Your task to perform on an android device: change notification settings in the gmail app Image 0: 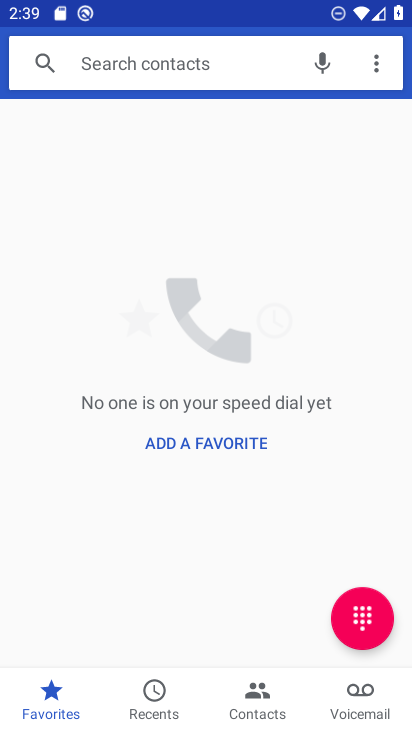
Step 0: press home button
Your task to perform on an android device: change notification settings in the gmail app Image 1: 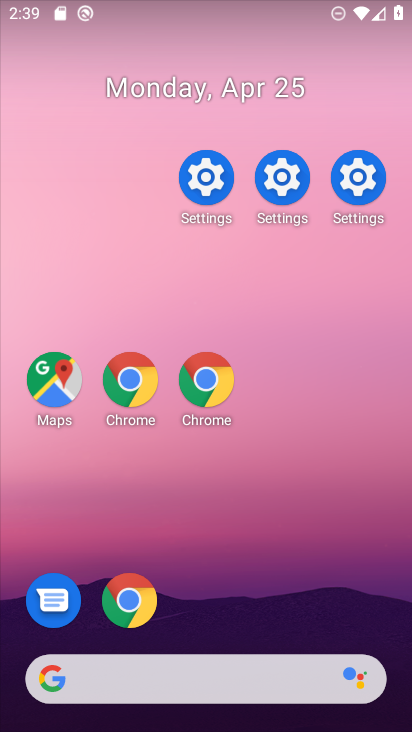
Step 1: drag from (220, 467) to (144, 0)
Your task to perform on an android device: change notification settings in the gmail app Image 2: 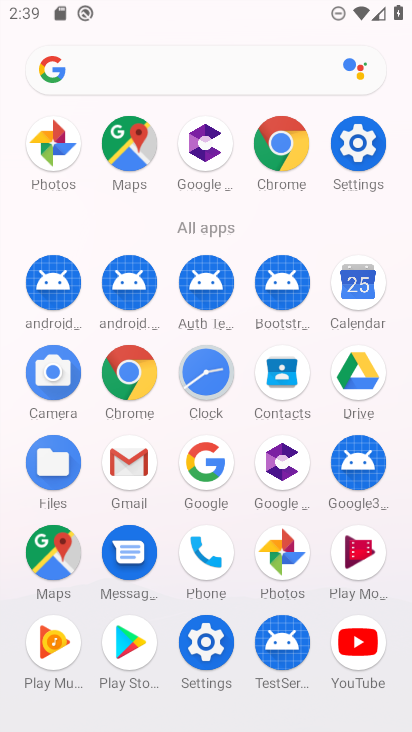
Step 2: click (122, 461)
Your task to perform on an android device: change notification settings in the gmail app Image 3: 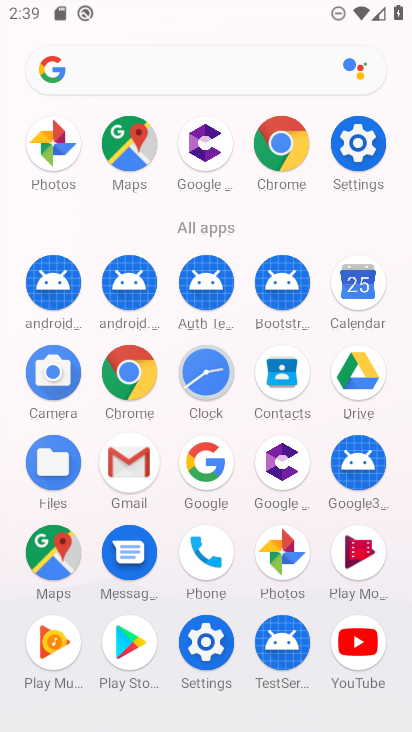
Step 3: click (122, 461)
Your task to perform on an android device: change notification settings in the gmail app Image 4: 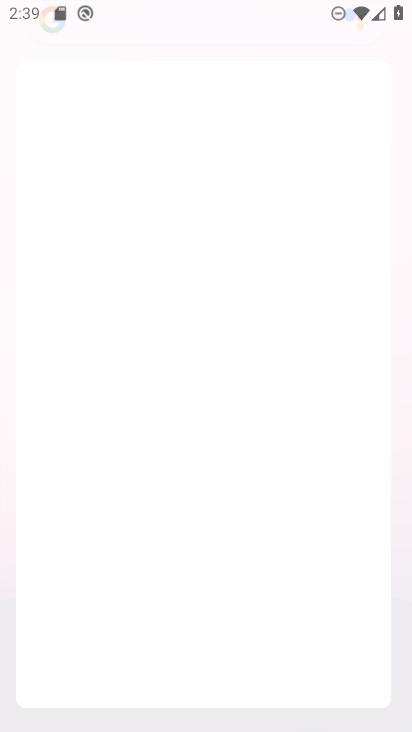
Step 4: click (124, 458)
Your task to perform on an android device: change notification settings in the gmail app Image 5: 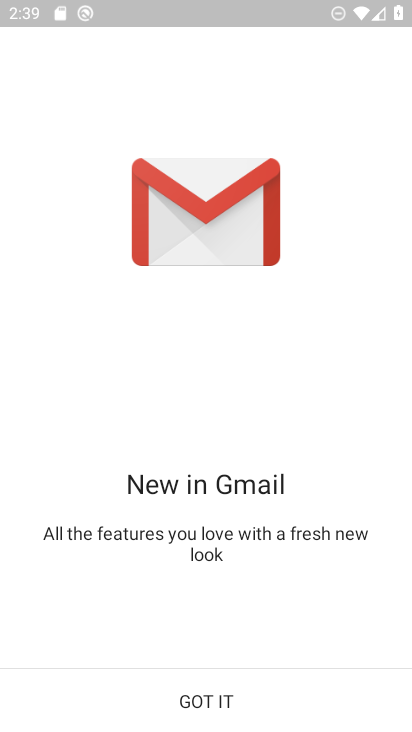
Step 5: click (209, 694)
Your task to perform on an android device: change notification settings in the gmail app Image 6: 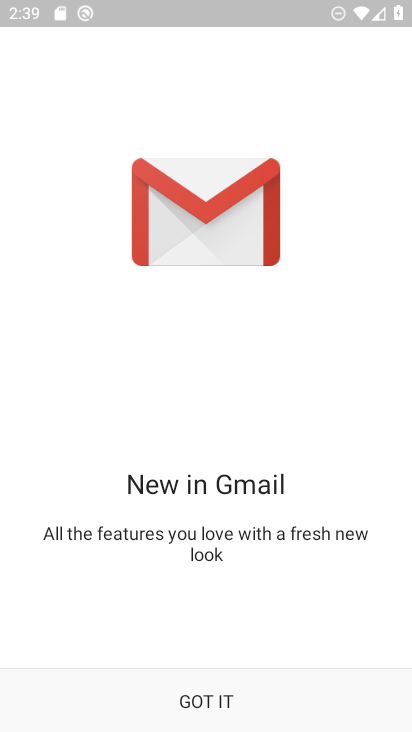
Step 6: click (207, 687)
Your task to perform on an android device: change notification settings in the gmail app Image 7: 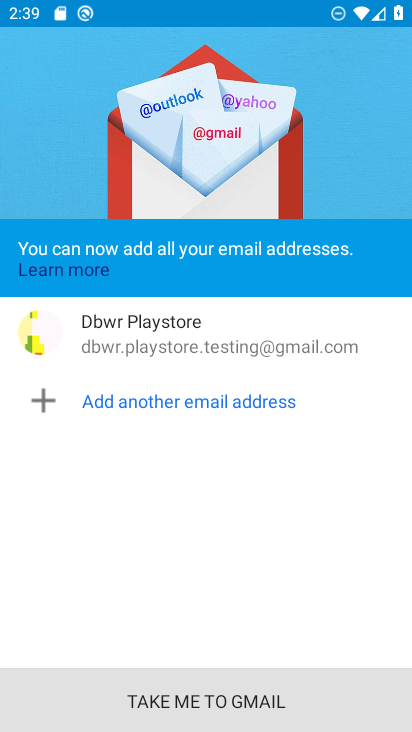
Step 7: click (207, 687)
Your task to perform on an android device: change notification settings in the gmail app Image 8: 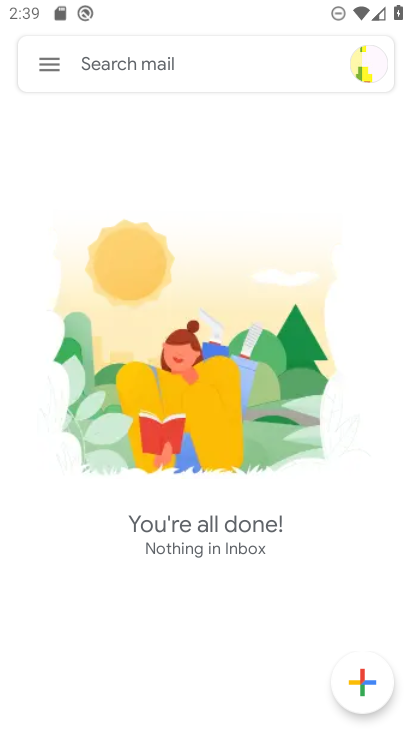
Step 8: click (47, 56)
Your task to perform on an android device: change notification settings in the gmail app Image 9: 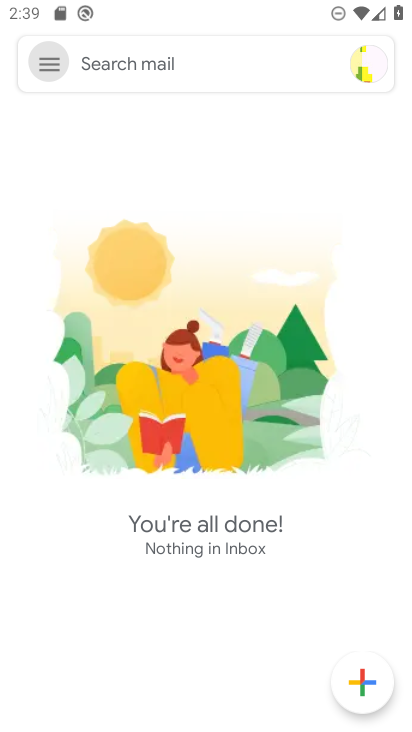
Step 9: click (47, 56)
Your task to perform on an android device: change notification settings in the gmail app Image 10: 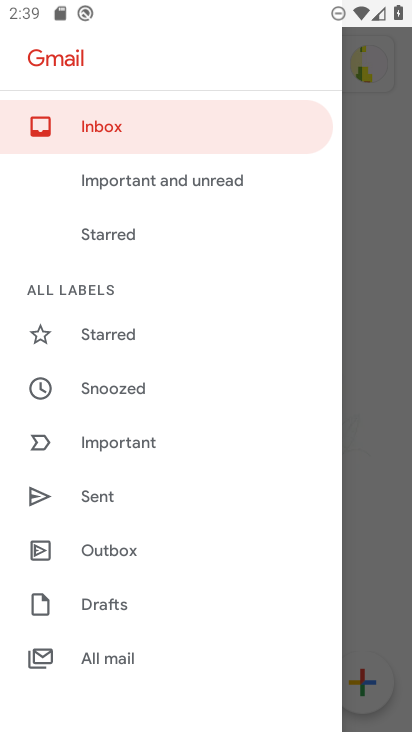
Step 10: drag from (157, 626) to (166, 16)
Your task to perform on an android device: change notification settings in the gmail app Image 11: 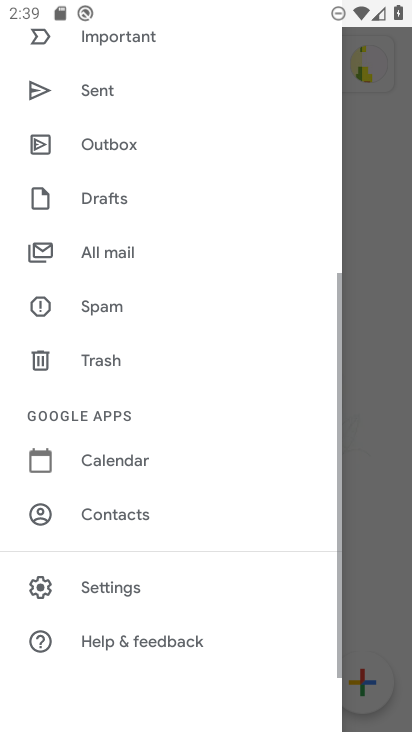
Step 11: click (94, 584)
Your task to perform on an android device: change notification settings in the gmail app Image 12: 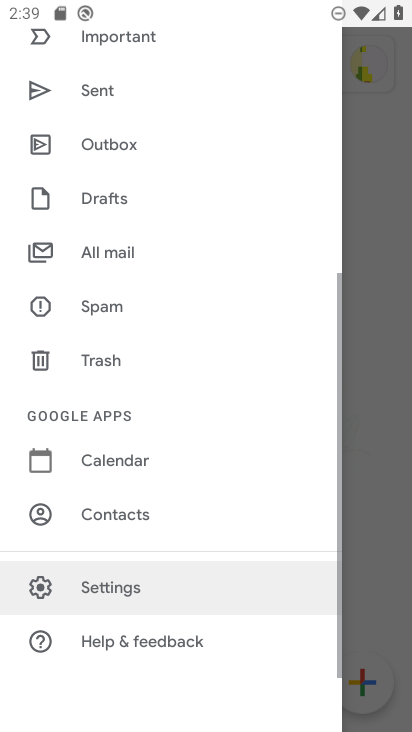
Step 12: click (94, 584)
Your task to perform on an android device: change notification settings in the gmail app Image 13: 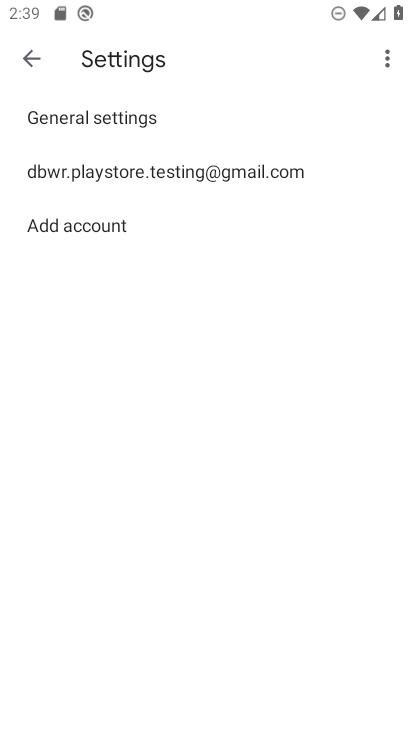
Step 13: click (127, 172)
Your task to perform on an android device: change notification settings in the gmail app Image 14: 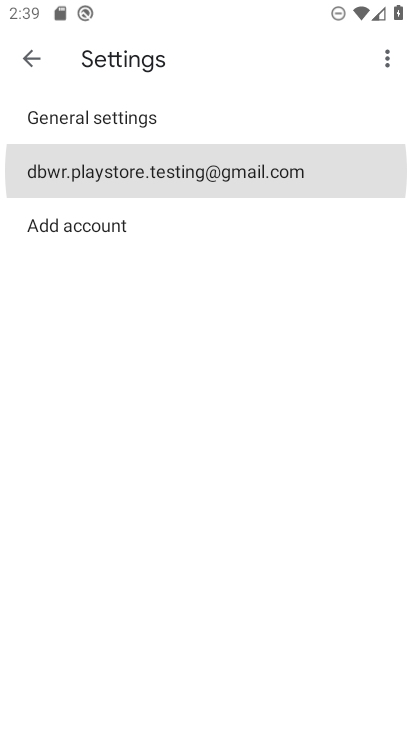
Step 14: click (133, 173)
Your task to perform on an android device: change notification settings in the gmail app Image 15: 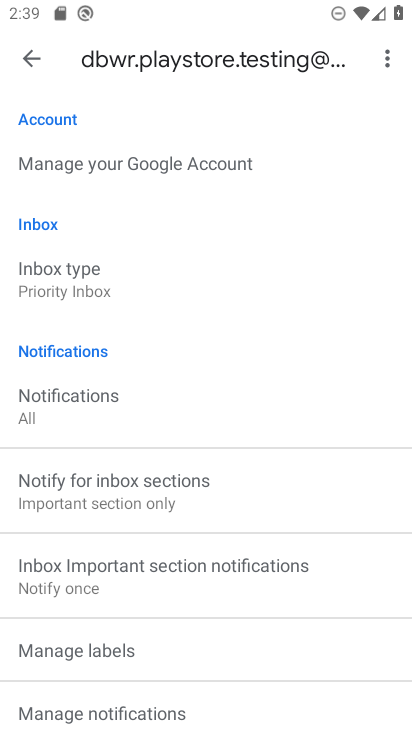
Step 15: click (47, 394)
Your task to perform on an android device: change notification settings in the gmail app Image 16: 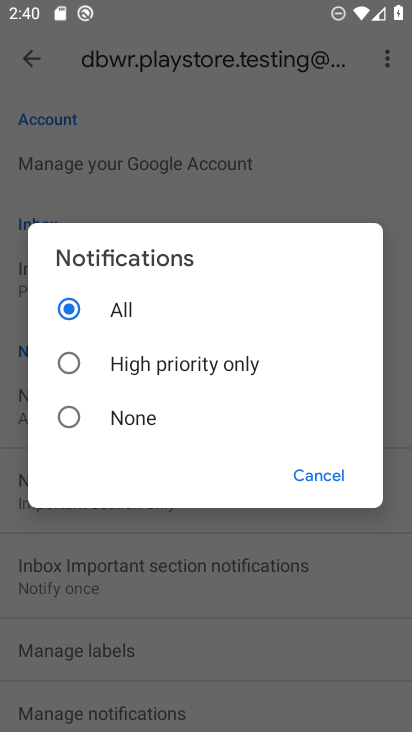
Step 16: click (65, 359)
Your task to perform on an android device: change notification settings in the gmail app Image 17: 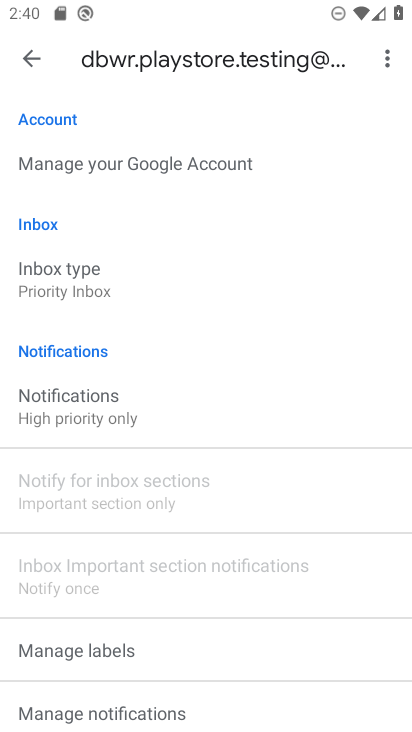
Step 17: task complete